Your task to perform on an android device: Go to internet settings Image 0: 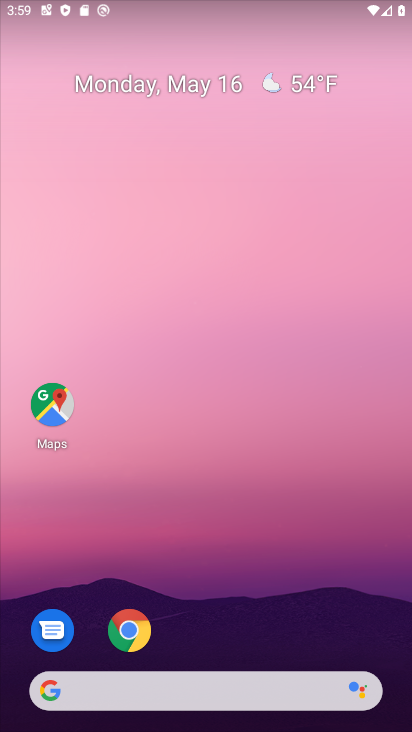
Step 0: drag from (239, 636) to (204, 34)
Your task to perform on an android device: Go to internet settings Image 1: 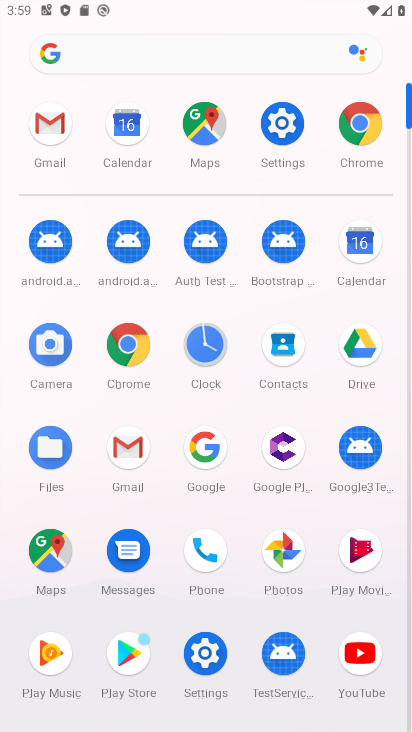
Step 1: click (281, 148)
Your task to perform on an android device: Go to internet settings Image 2: 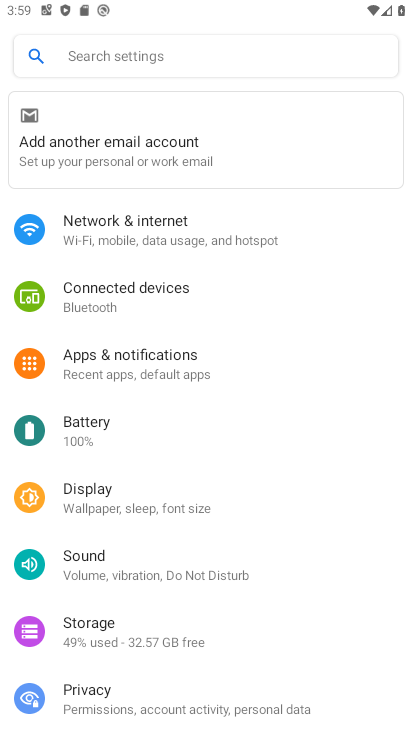
Step 2: click (216, 223)
Your task to perform on an android device: Go to internet settings Image 3: 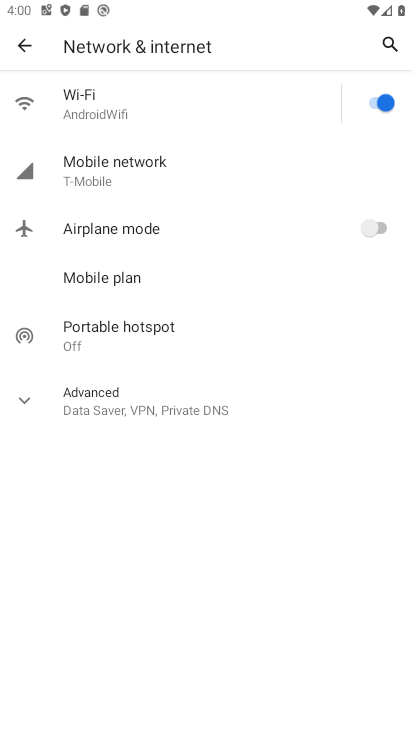
Step 3: task complete